Your task to perform on an android device: turn notification dots on Image 0: 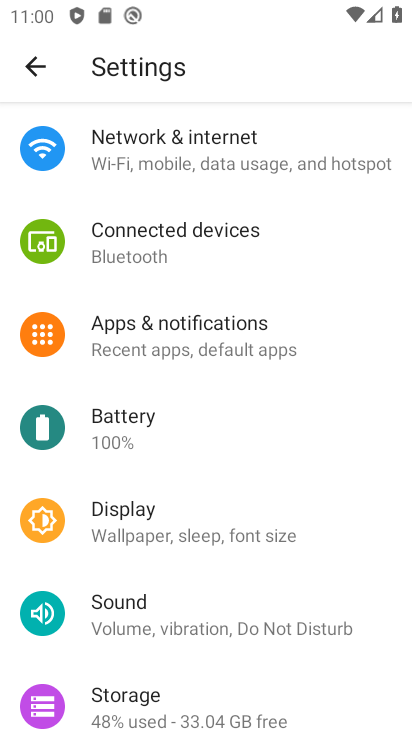
Step 0: press home button
Your task to perform on an android device: turn notification dots on Image 1: 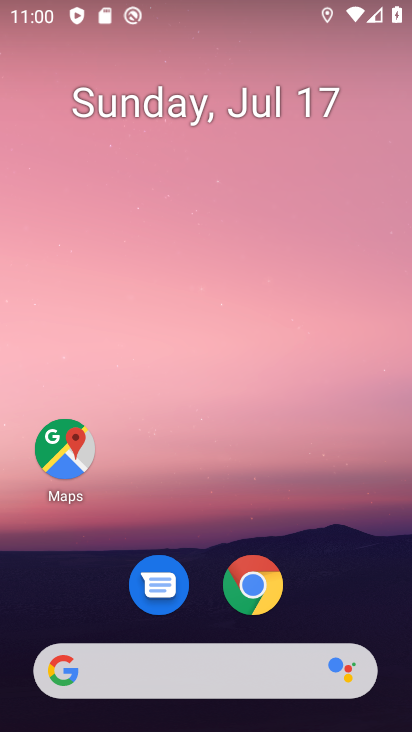
Step 1: drag from (349, 559) to (332, 167)
Your task to perform on an android device: turn notification dots on Image 2: 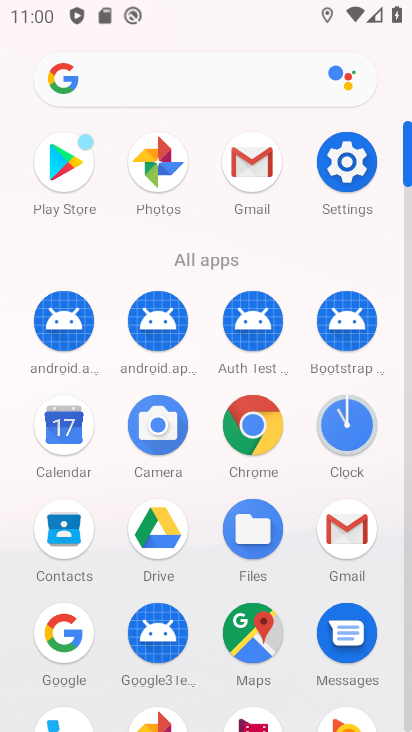
Step 2: click (360, 145)
Your task to perform on an android device: turn notification dots on Image 3: 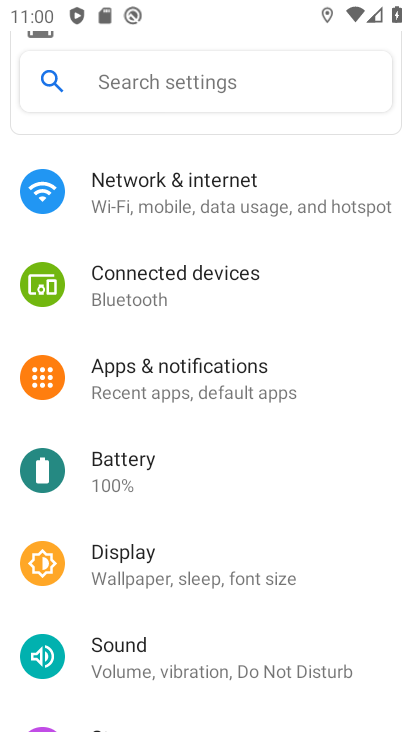
Step 3: click (212, 379)
Your task to perform on an android device: turn notification dots on Image 4: 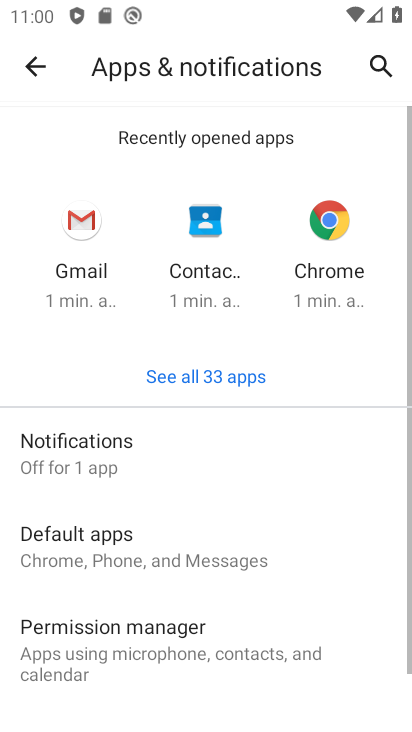
Step 4: click (117, 446)
Your task to perform on an android device: turn notification dots on Image 5: 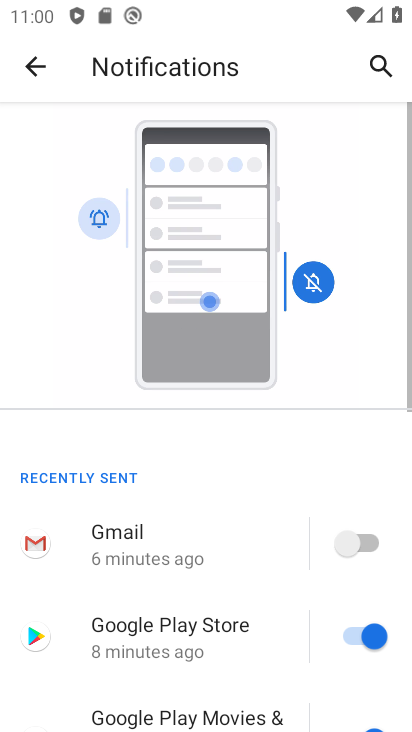
Step 5: drag from (215, 472) to (280, 208)
Your task to perform on an android device: turn notification dots on Image 6: 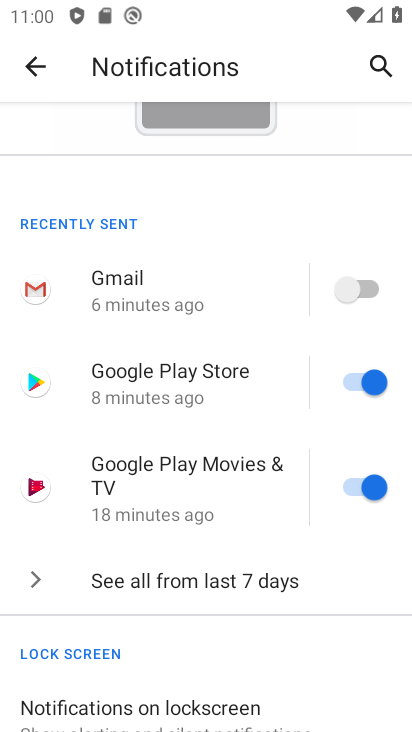
Step 6: drag from (178, 588) to (258, 240)
Your task to perform on an android device: turn notification dots on Image 7: 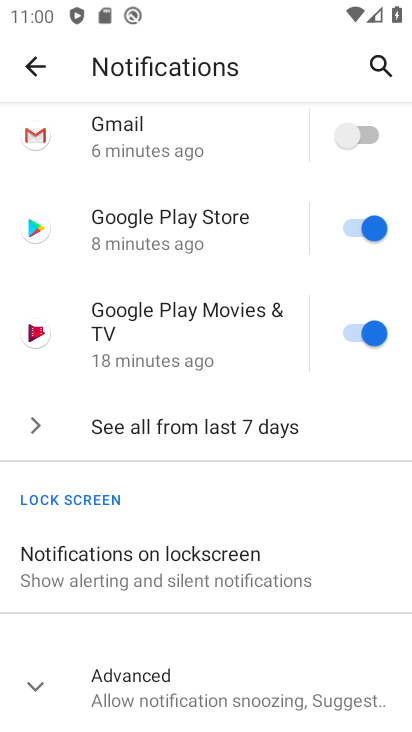
Step 7: click (35, 685)
Your task to perform on an android device: turn notification dots on Image 8: 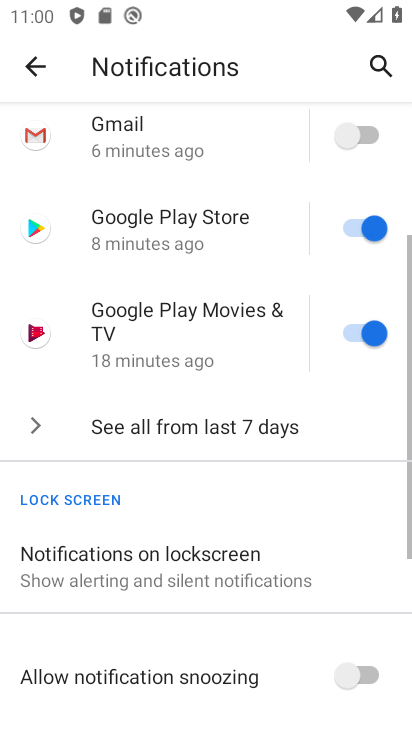
Step 8: task complete